Your task to perform on an android device: turn smart compose on in the gmail app Image 0: 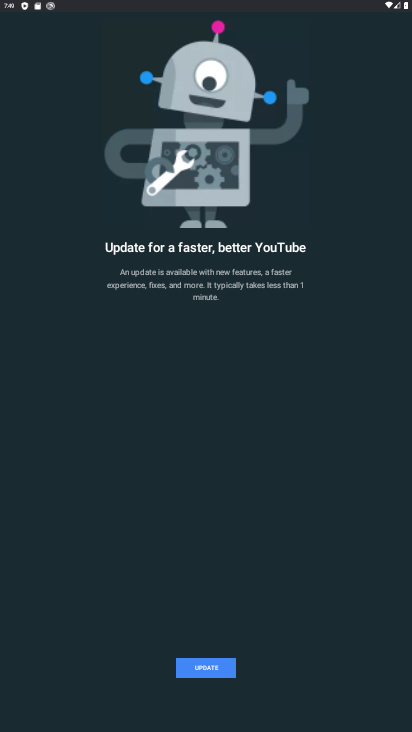
Step 0: press home button
Your task to perform on an android device: turn smart compose on in the gmail app Image 1: 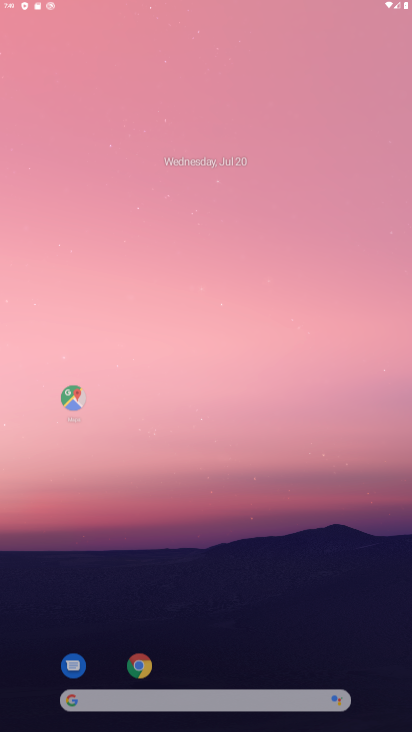
Step 1: drag from (216, 559) to (317, 146)
Your task to perform on an android device: turn smart compose on in the gmail app Image 2: 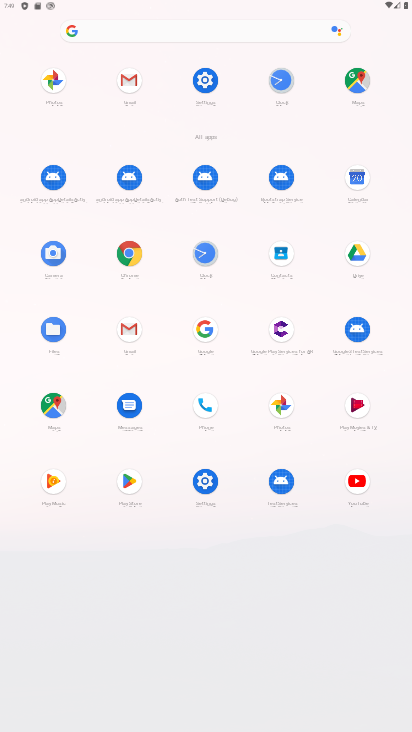
Step 2: click (130, 330)
Your task to perform on an android device: turn smart compose on in the gmail app Image 3: 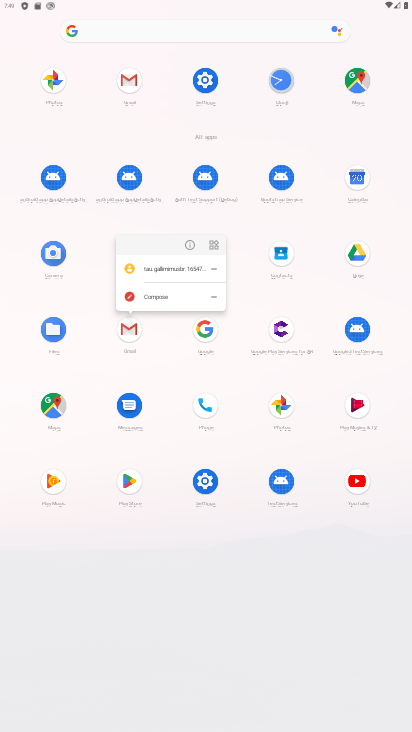
Step 3: click (186, 239)
Your task to perform on an android device: turn smart compose on in the gmail app Image 4: 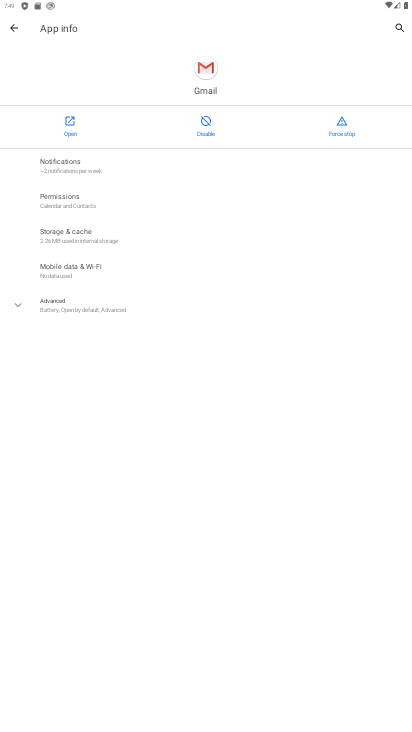
Step 4: click (62, 125)
Your task to perform on an android device: turn smart compose on in the gmail app Image 5: 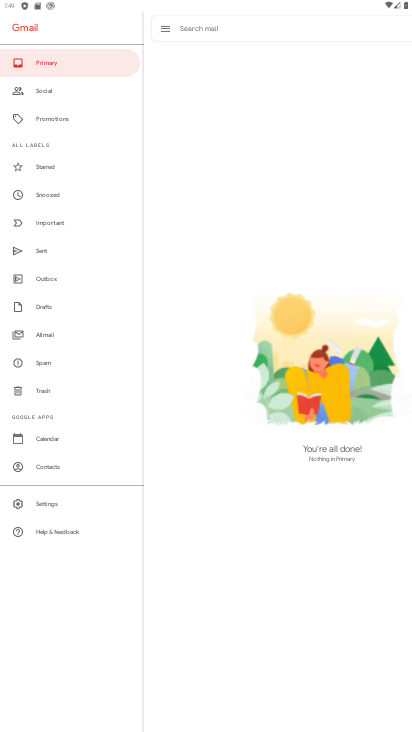
Step 5: click (52, 504)
Your task to perform on an android device: turn smart compose on in the gmail app Image 6: 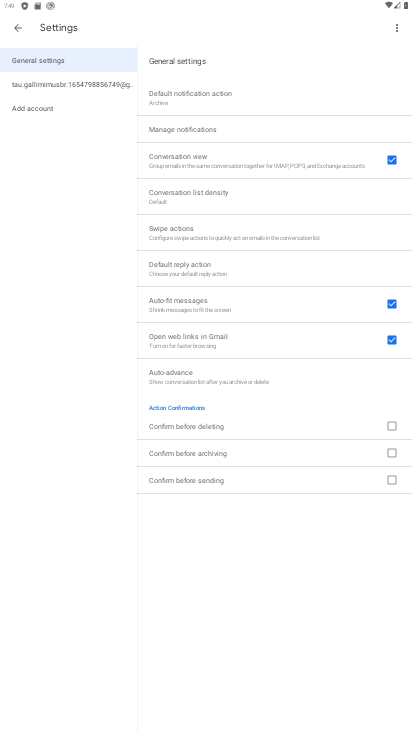
Step 6: click (64, 89)
Your task to perform on an android device: turn smart compose on in the gmail app Image 7: 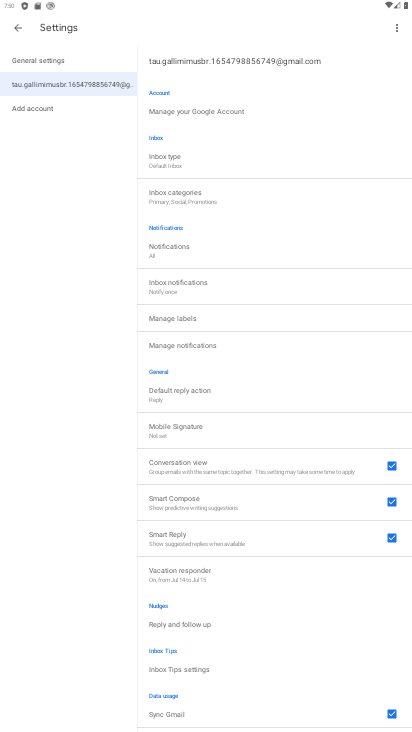
Step 7: task complete